Your task to perform on an android device: change alarm snooze length Image 0: 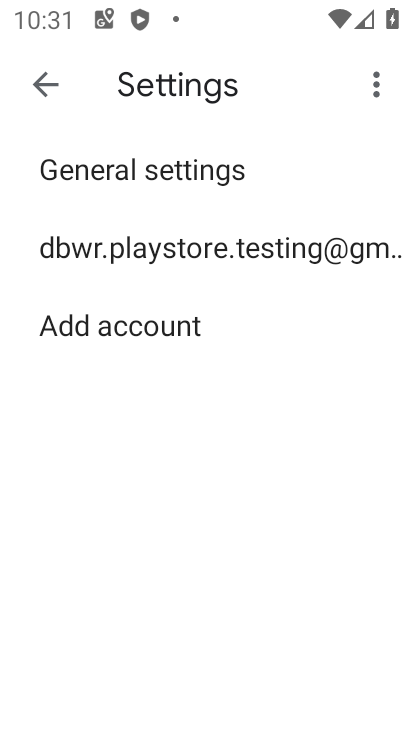
Step 0: press home button
Your task to perform on an android device: change alarm snooze length Image 1: 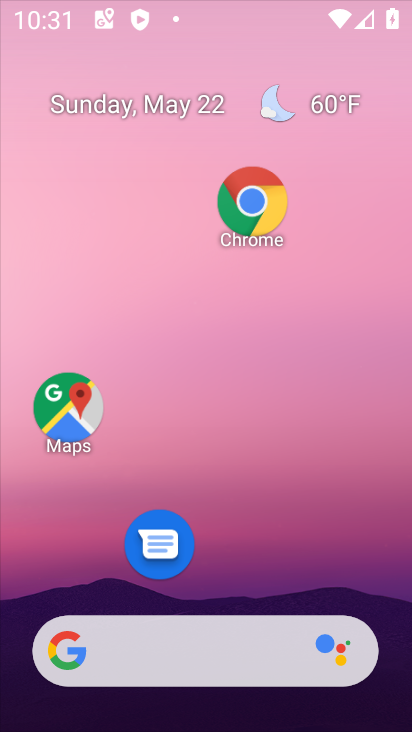
Step 1: drag from (297, 524) to (336, 17)
Your task to perform on an android device: change alarm snooze length Image 2: 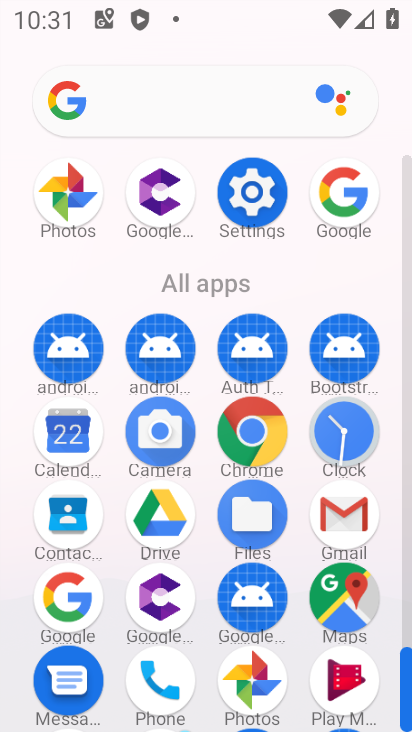
Step 2: click (342, 434)
Your task to perform on an android device: change alarm snooze length Image 3: 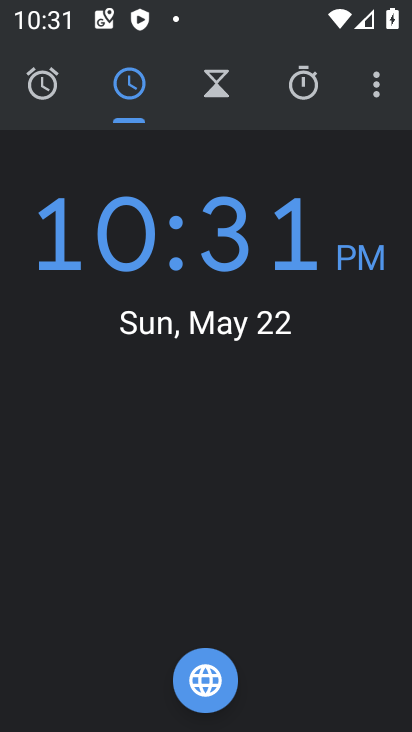
Step 3: click (371, 90)
Your task to perform on an android device: change alarm snooze length Image 4: 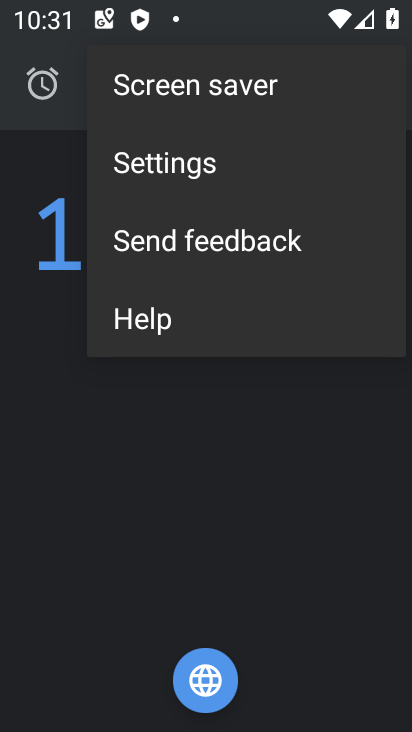
Step 4: click (165, 174)
Your task to perform on an android device: change alarm snooze length Image 5: 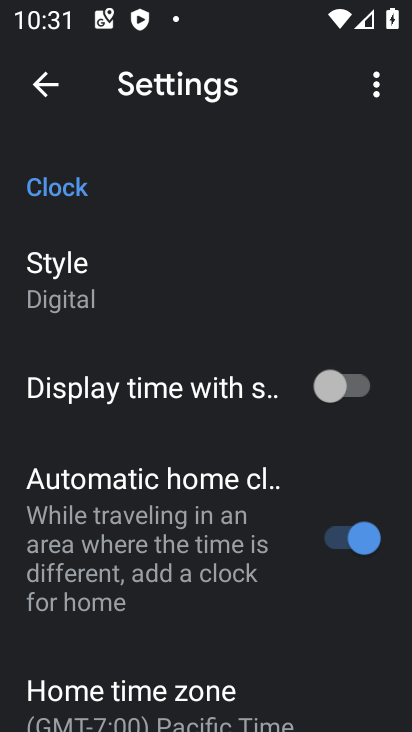
Step 5: drag from (260, 524) to (237, 143)
Your task to perform on an android device: change alarm snooze length Image 6: 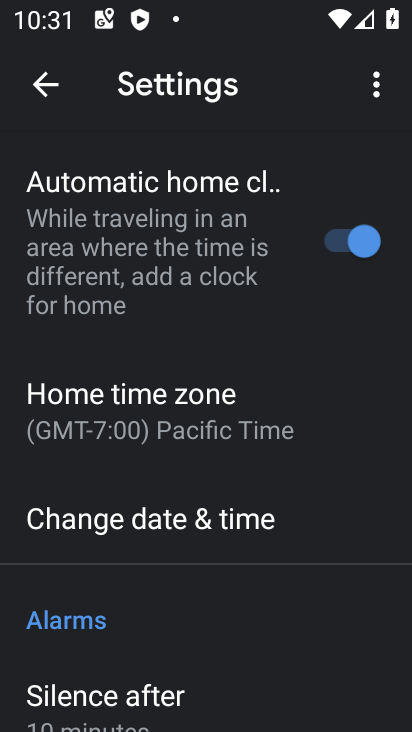
Step 6: drag from (135, 621) to (149, 263)
Your task to perform on an android device: change alarm snooze length Image 7: 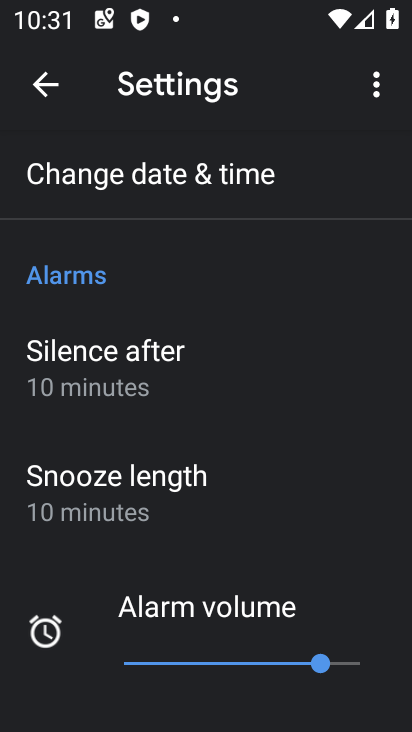
Step 7: click (67, 512)
Your task to perform on an android device: change alarm snooze length Image 8: 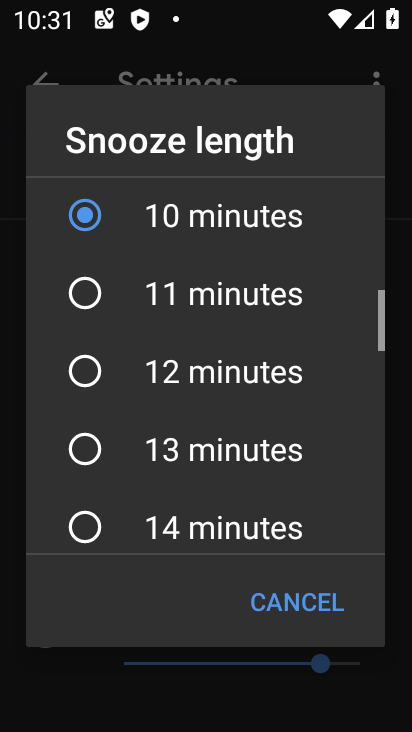
Step 8: click (102, 290)
Your task to perform on an android device: change alarm snooze length Image 9: 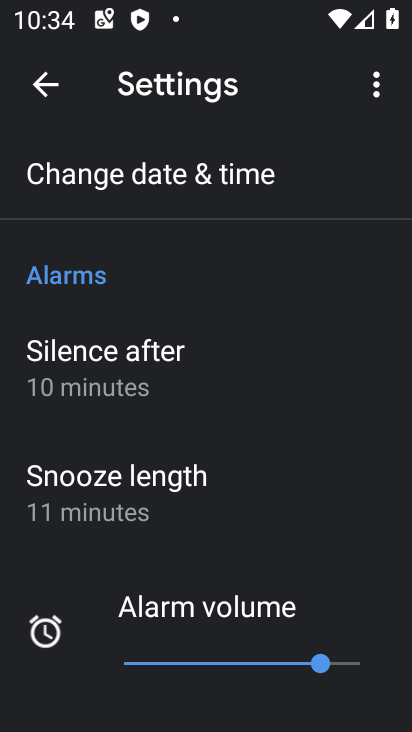
Step 9: task complete